Your task to perform on an android device: Open settings on Google Maps Image 0: 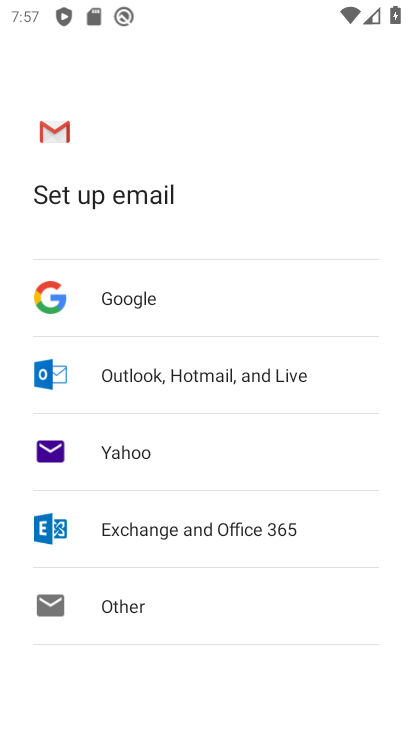
Step 0: press home button
Your task to perform on an android device: Open settings on Google Maps Image 1: 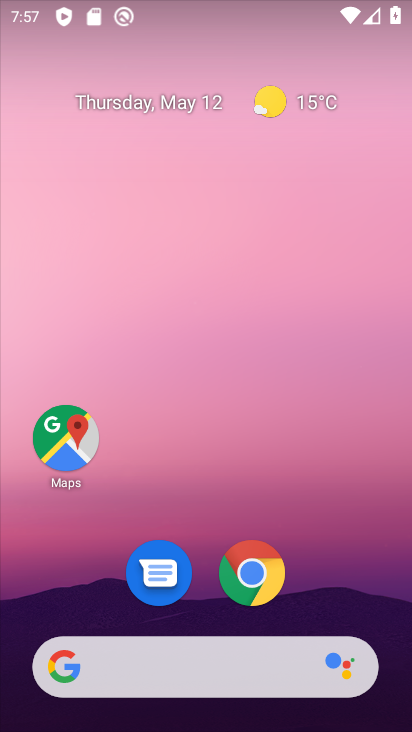
Step 1: click (70, 433)
Your task to perform on an android device: Open settings on Google Maps Image 2: 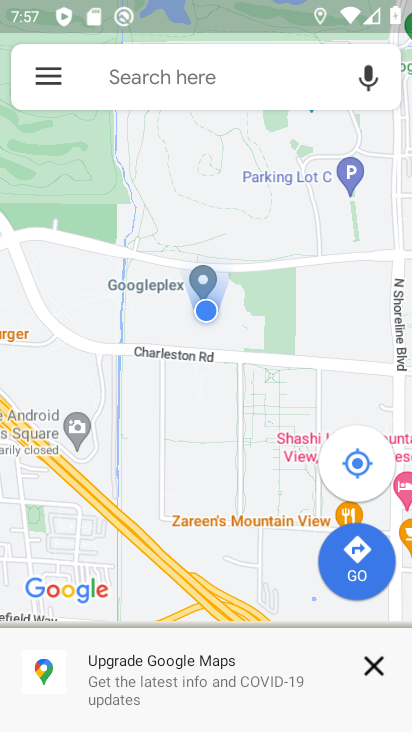
Step 2: click (49, 81)
Your task to perform on an android device: Open settings on Google Maps Image 3: 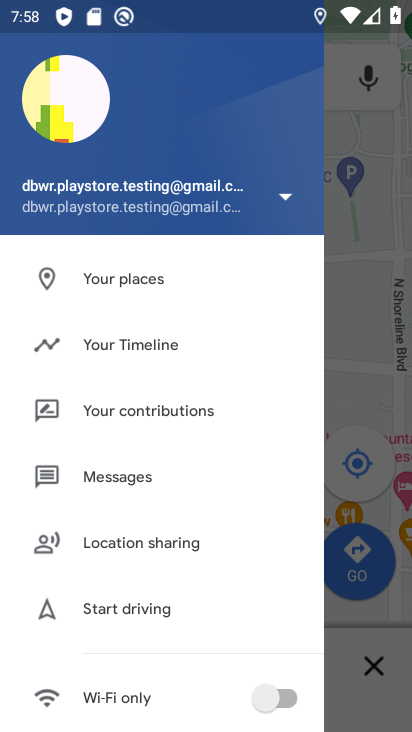
Step 3: drag from (196, 586) to (158, 236)
Your task to perform on an android device: Open settings on Google Maps Image 4: 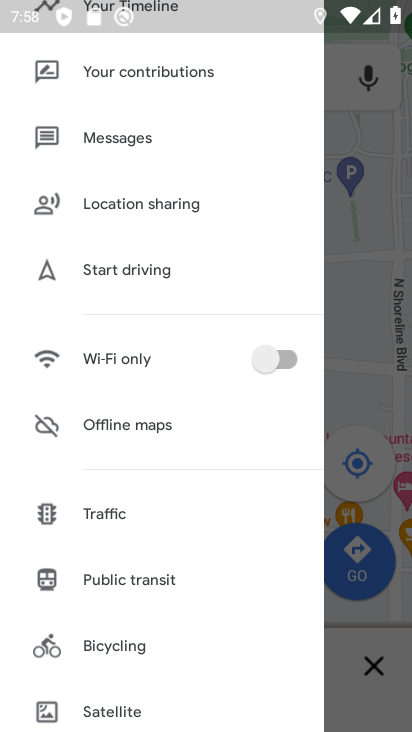
Step 4: drag from (165, 547) to (106, 226)
Your task to perform on an android device: Open settings on Google Maps Image 5: 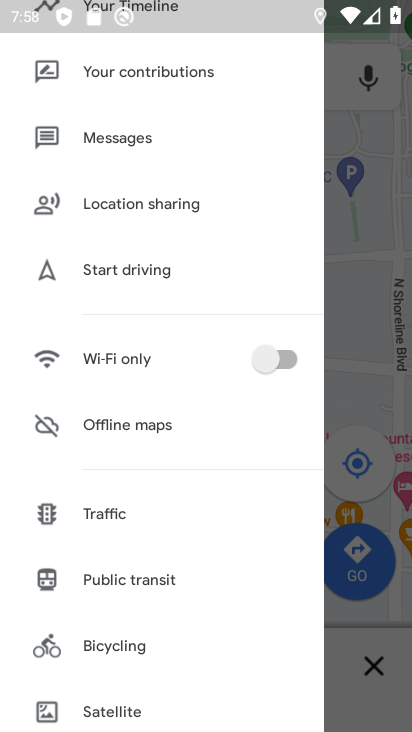
Step 5: drag from (112, 608) to (90, 308)
Your task to perform on an android device: Open settings on Google Maps Image 6: 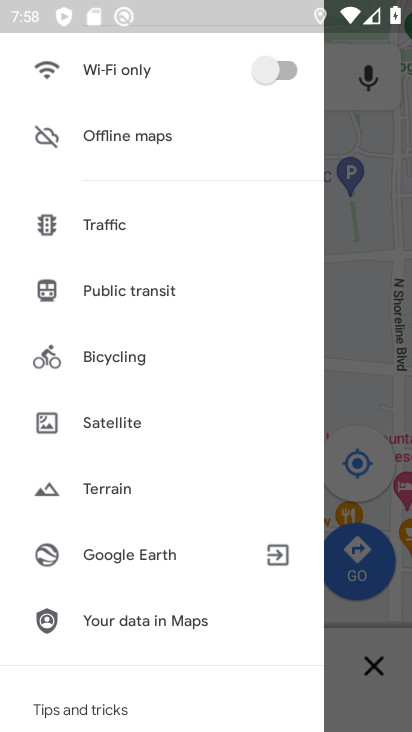
Step 6: drag from (113, 462) to (86, 237)
Your task to perform on an android device: Open settings on Google Maps Image 7: 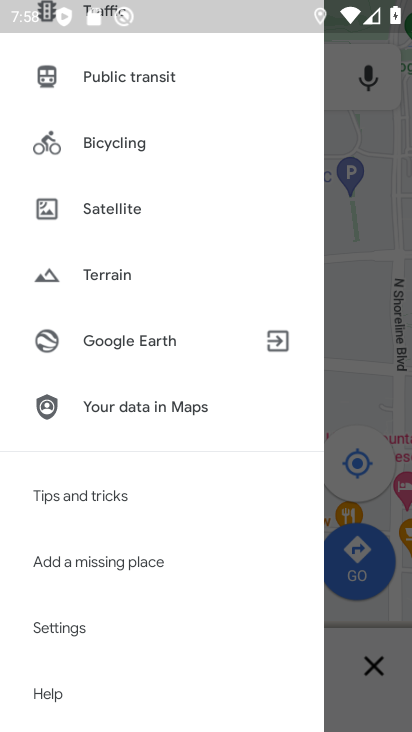
Step 7: drag from (117, 602) to (94, 347)
Your task to perform on an android device: Open settings on Google Maps Image 8: 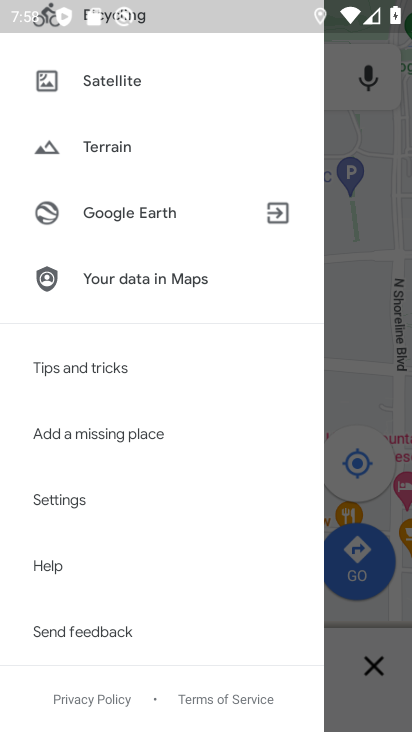
Step 8: click (53, 489)
Your task to perform on an android device: Open settings on Google Maps Image 9: 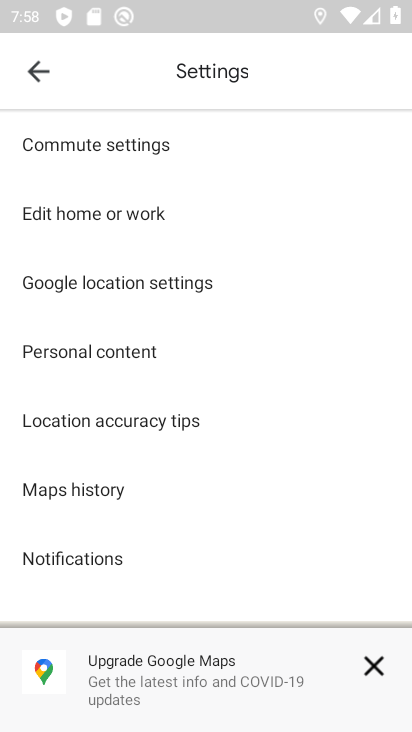
Step 9: task complete